Your task to perform on an android device: empty trash in the gmail app Image 0: 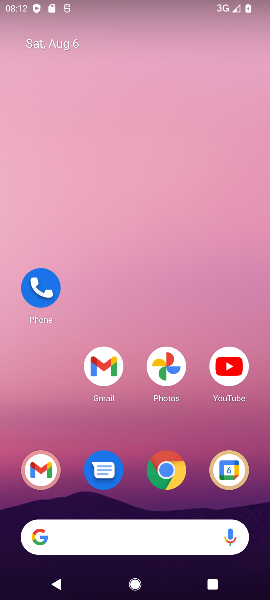
Step 0: press home button
Your task to perform on an android device: empty trash in the gmail app Image 1: 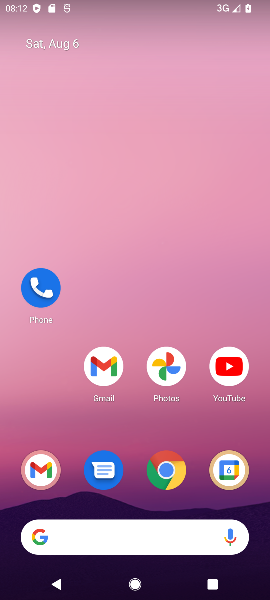
Step 1: click (142, 40)
Your task to perform on an android device: empty trash in the gmail app Image 2: 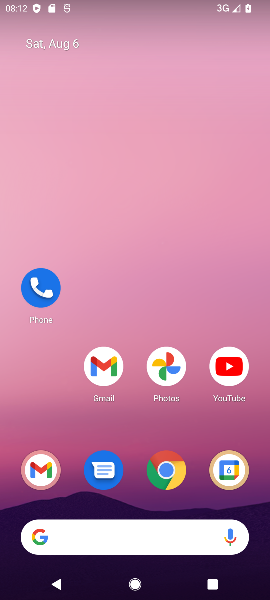
Step 2: click (165, 368)
Your task to perform on an android device: empty trash in the gmail app Image 3: 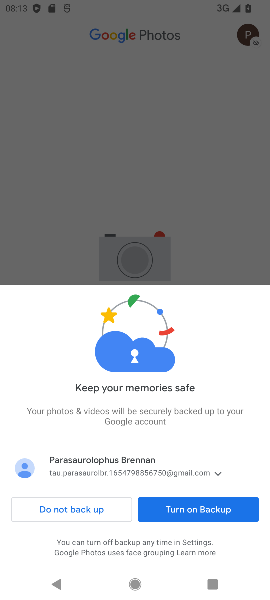
Step 3: click (94, 514)
Your task to perform on an android device: empty trash in the gmail app Image 4: 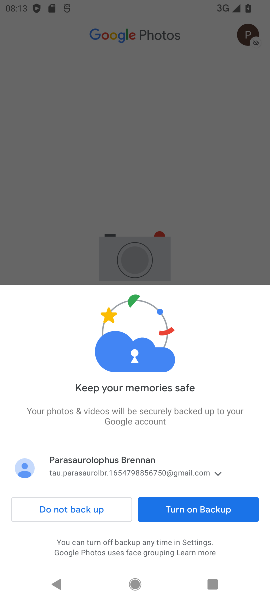
Step 4: click (21, 506)
Your task to perform on an android device: empty trash in the gmail app Image 5: 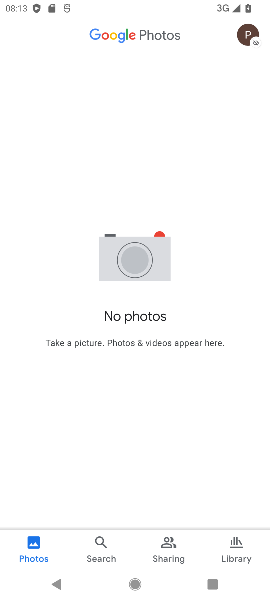
Step 5: click (232, 542)
Your task to perform on an android device: empty trash in the gmail app Image 6: 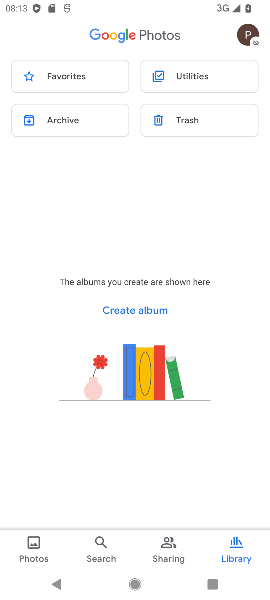
Step 6: click (171, 131)
Your task to perform on an android device: empty trash in the gmail app Image 7: 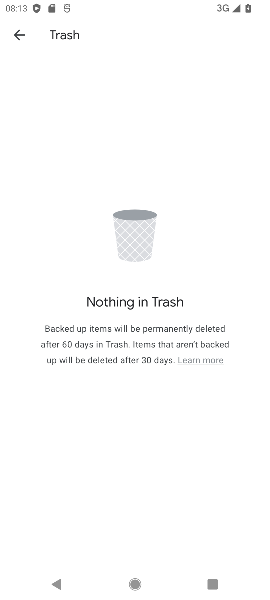
Step 7: task complete